Your task to perform on an android device: open a bookmark in the chrome app Image 0: 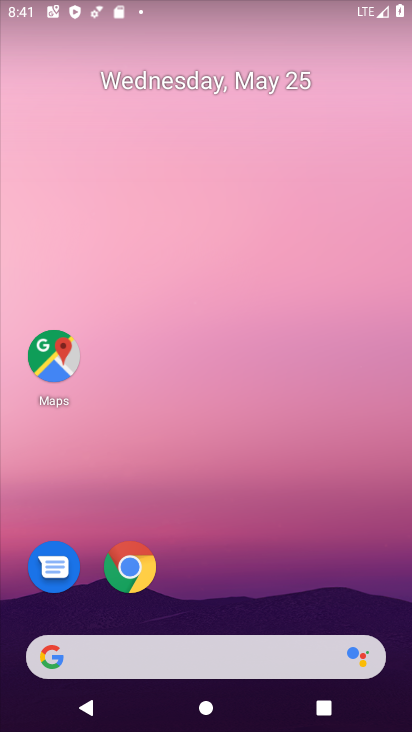
Step 0: click (133, 560)
Your task to perform on an android device: open a bookmark in the chrome app Image 1: 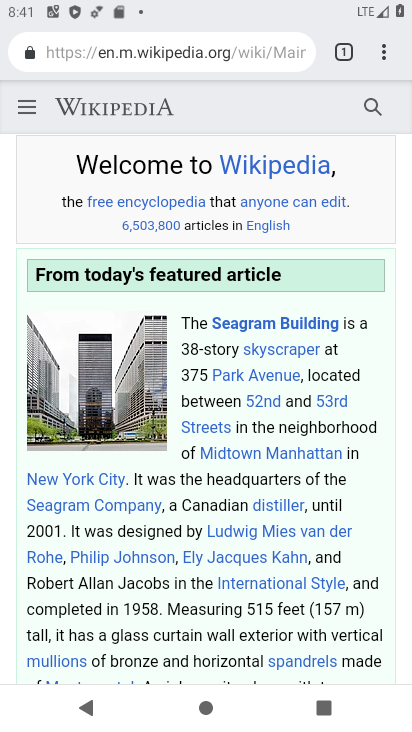
Step 1: click (379, 48)
Your task to perform on an android device: open a bookmark in the chrome app Image 2: 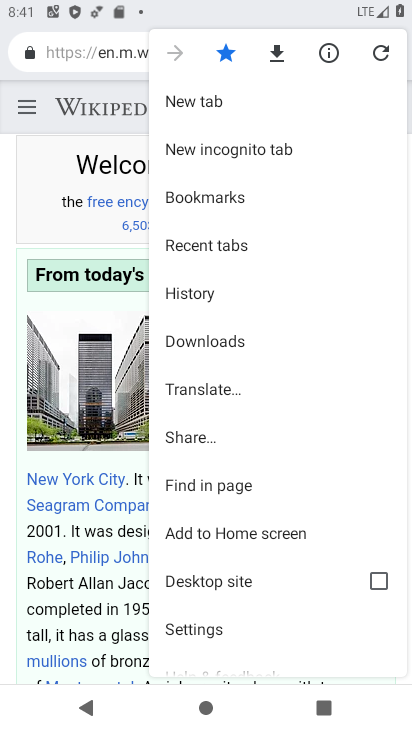
Step 2: click (235, 191)
Your task to perform on an android device: open a bookmark in the chrome app Image 3: 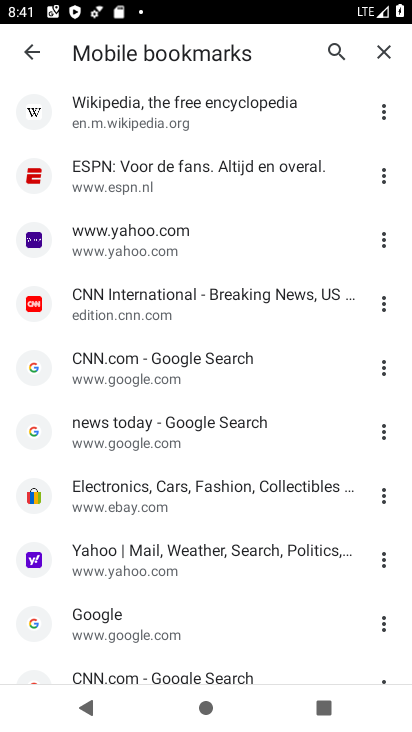
Step 3: click (239, 101)
Your task to perform on an android device: open a bookmark in the chrome app Image 4: 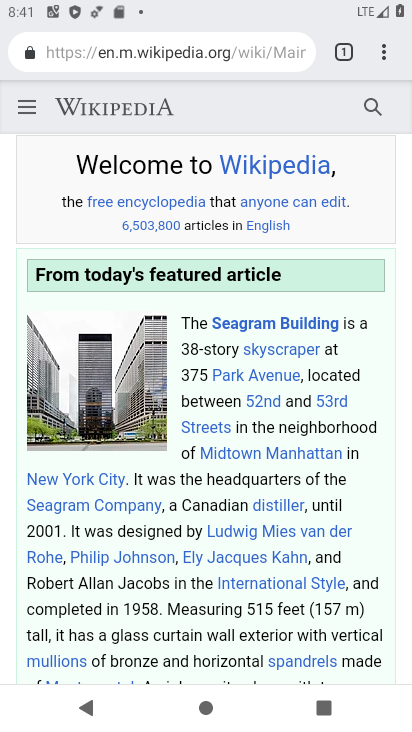
Step 4: click (124, 111)
Your task to perform on an android device: open a bookmark in the chrome app Image 5: 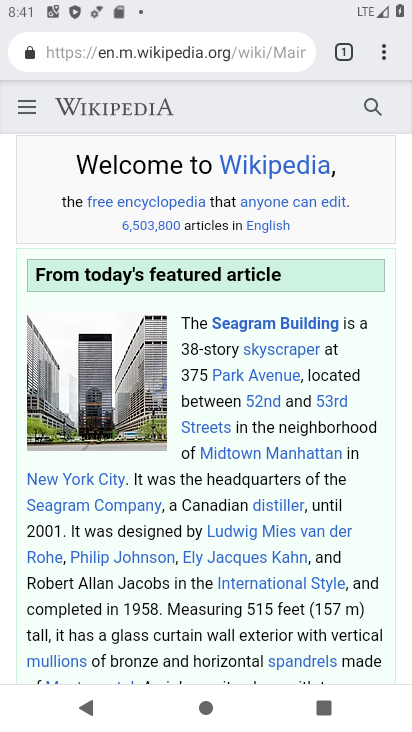
Step 5: task complete